Your task to perform on an android device: check the backup settings in the google photos Image 0: 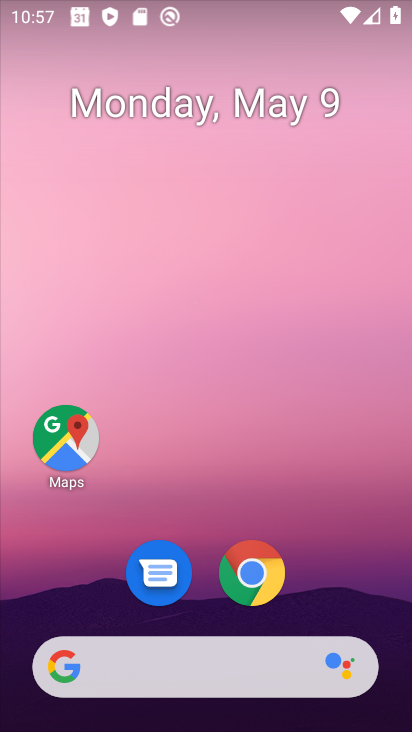
Step 0: drag from (217, 617) to (189, 148)
Your task to perform on an android device: check the backup settings in the google photos Image 1: 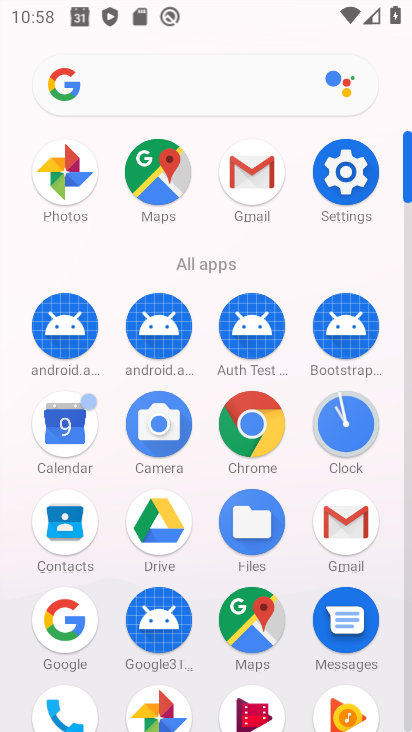
Step 1: click (150, 709)
Your task to perform on an android device: check the backup settings in the google photos Image 2: 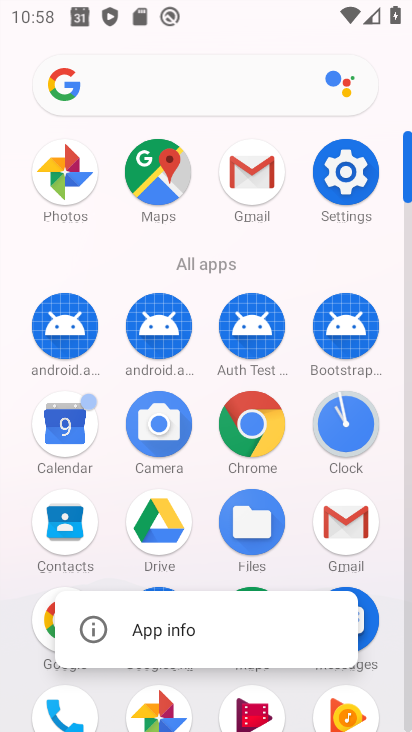
Step 2: click (167, 642)
Your task to perform on an android device: check the backup settings in the google photos Image 3: 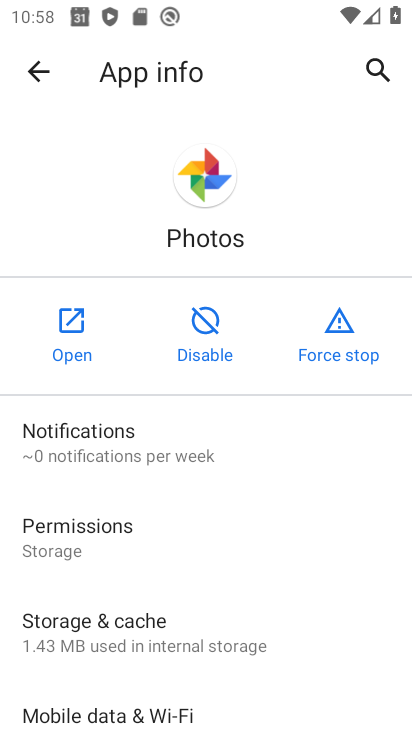
Step 3: click (78, 331)
Your task to perform on an android device: check the backup settings in the google photos Image 4: 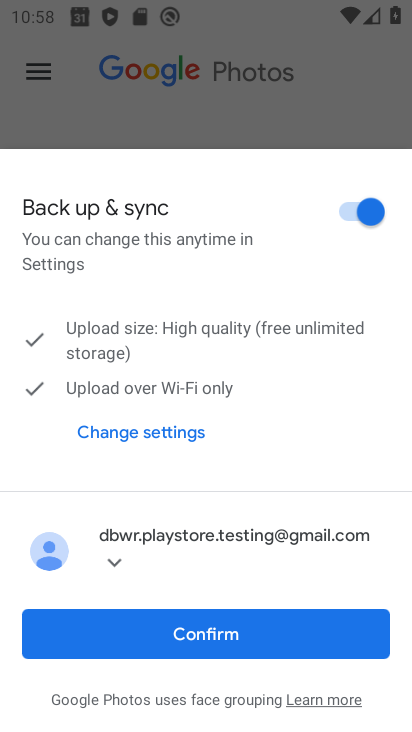
Step 4: click (195, 634)
Your task to perform on an android device: check the backup settings in the google photos Image 5: 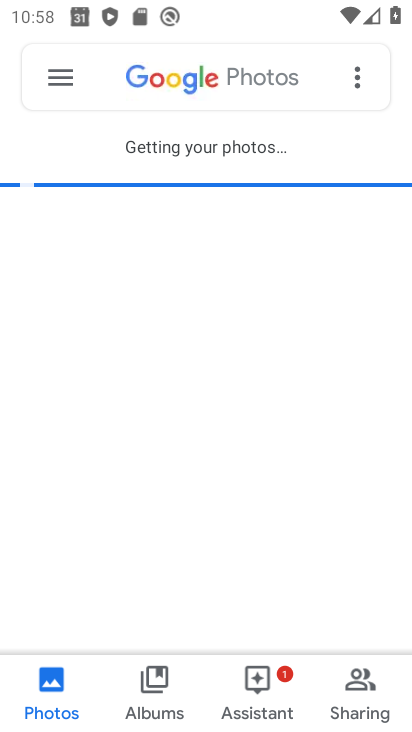
Step 5: click (36, 72)
Your task to perform on an android device: check the backup settings in the google photos Image 6: 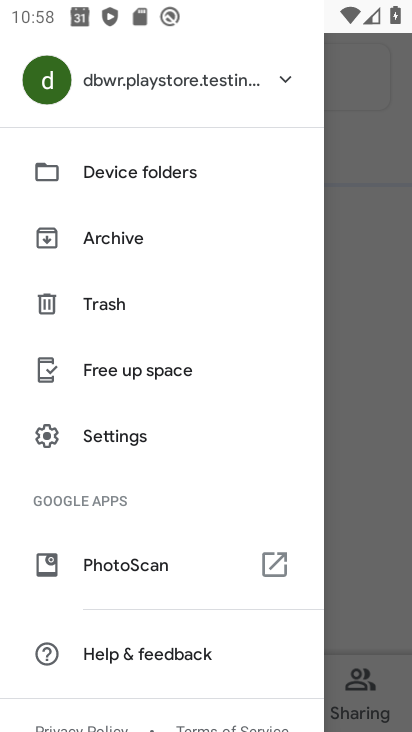
Step 6: click (147, 442)
Your task to perform on an android device: check the backup settings in the google photos Image 7: 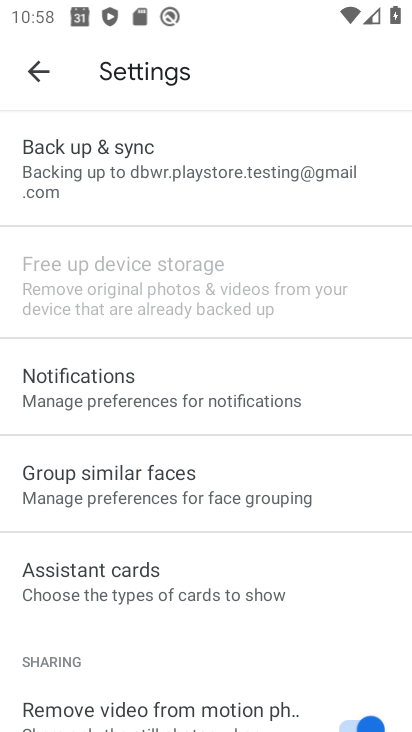
Step 7: drag from (185, 620) to (251, 255)
Your task to perform on an android device: check the backup settings in the google photos Image 8: 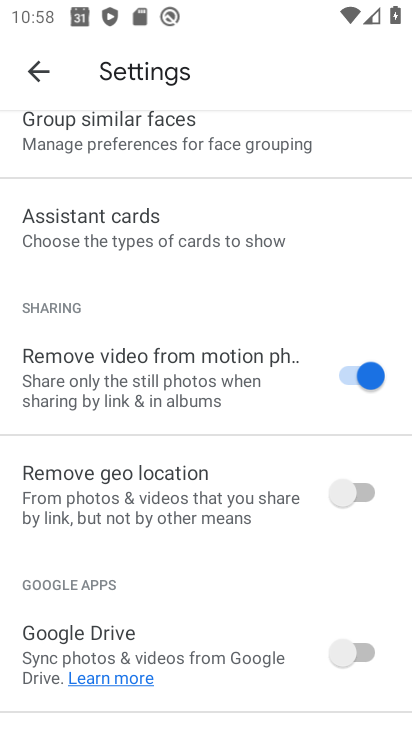
Step 8: click (168, 171)
Your task to perform on an android device: check the backup settings in the google photos Image 9: 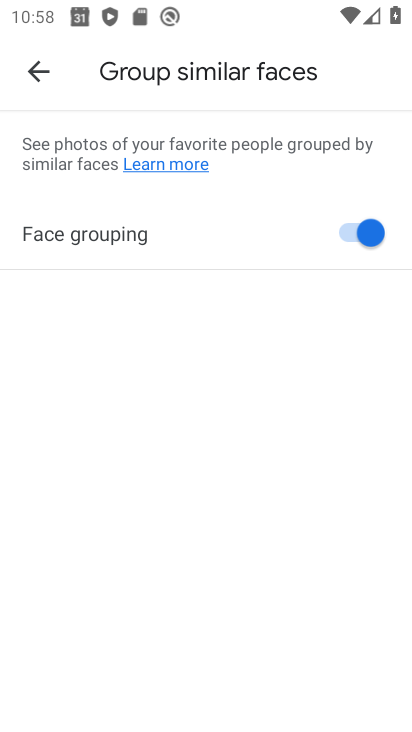
Step 9: task complete